Your task to perform on an android device: Open Yahoo.com Image 0: 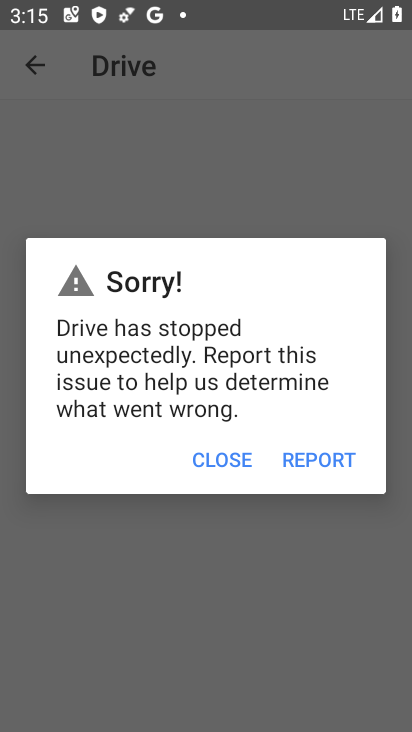
Step 0: press home button
Your task to perform on an android device: Open Yahoo.com Image 1: 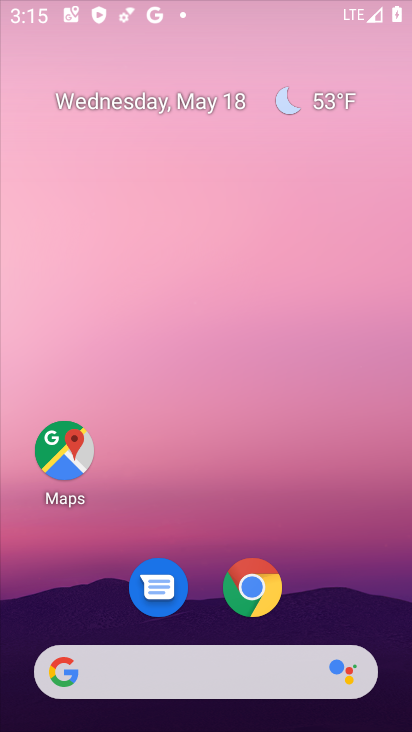
Step 1: drag from (211, 607) to (304, 277)
Your task to perform on an android device: Open Yahoo.com Image 2: 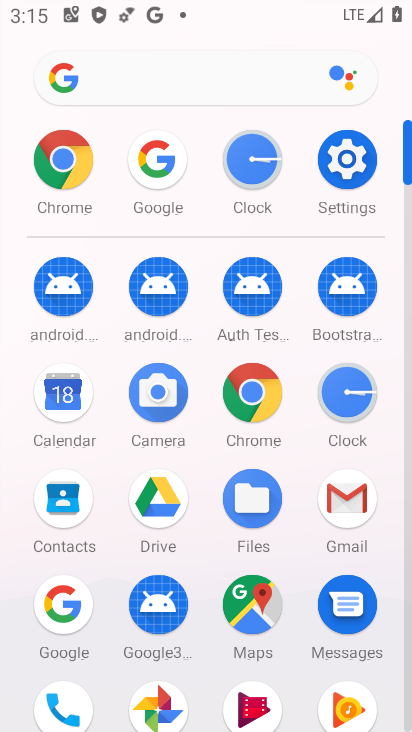
Step 2: click (53, 186)
Your task to perform on an android device: Open Yahoo.com Image 3: 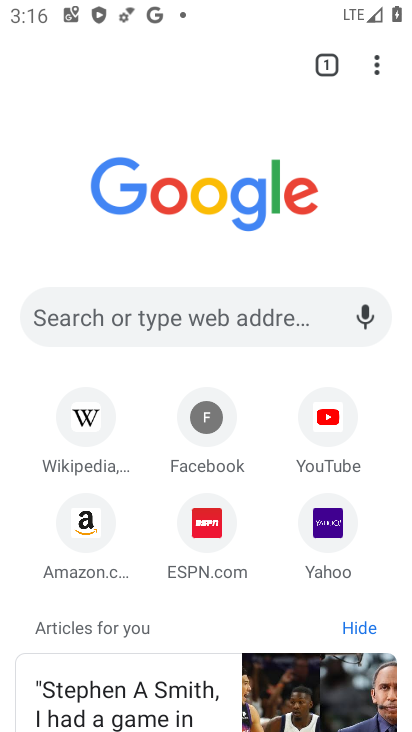
Step 3: click (217, 316)
Your task to perform on an android device: Open Yahoo.com Image 4: 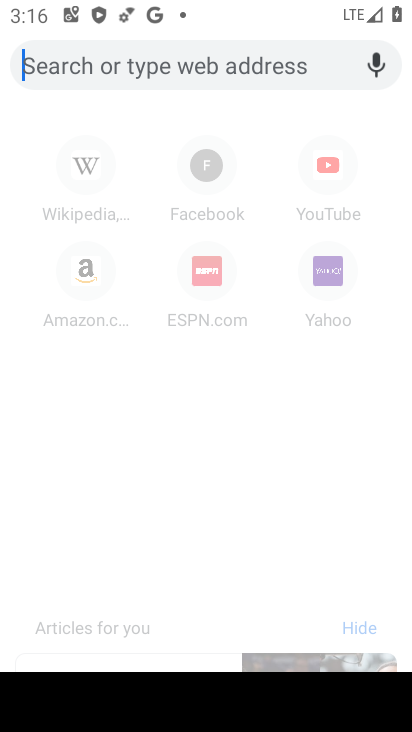
Step 4: type "yahoo"
Your task to perform on an android device: Open Yahoo.com Image 5: 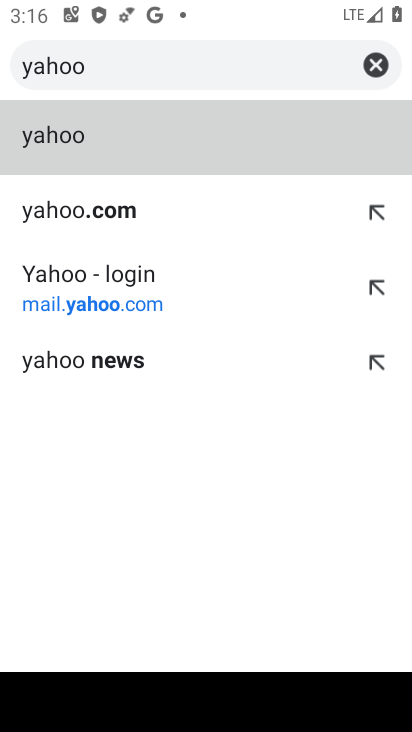
Step 5: click (172, 300)
Your task to perform on an android device: Open Yahoo.com Image 6: 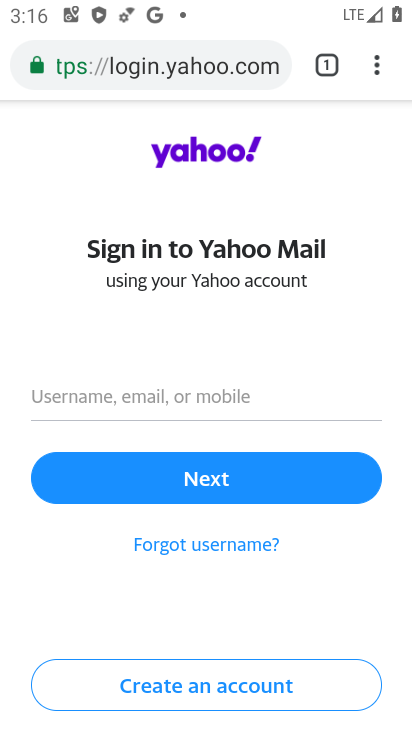
Step 6: task complete